Your task to perform on an android device: set the stopwatch Image 0: 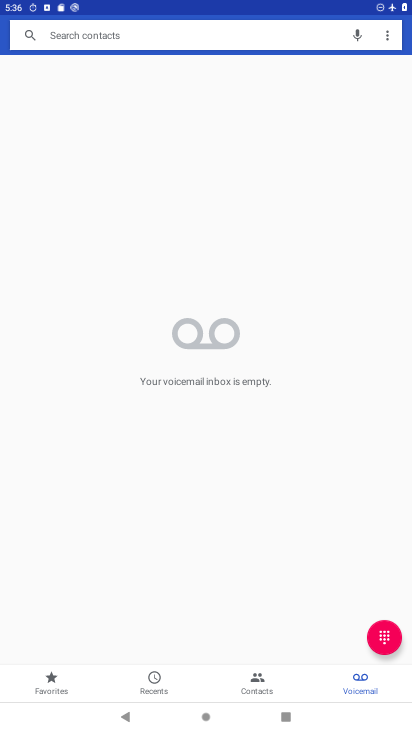
Step 0: press home button
Your task to perform on an android device: set the stopwatch Image 1: 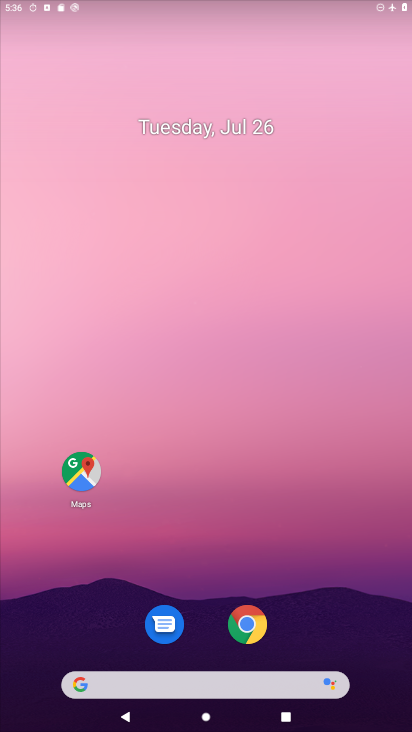
Step 1: drag from (194, 671) to (278, 50)
Your task to perform on an android device: set the stopwatch Image 2: 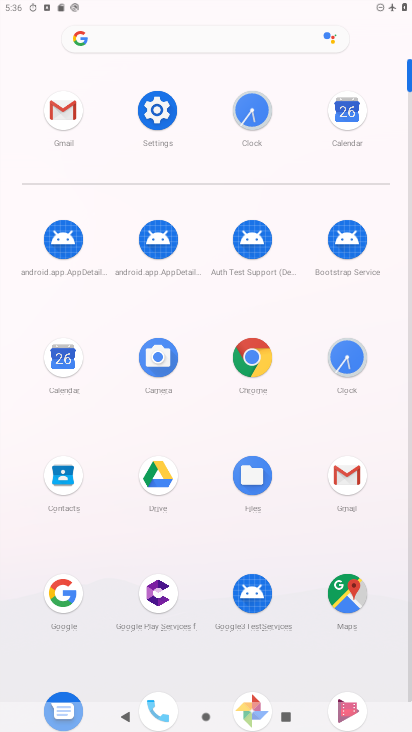
Step 2: click (340, 349)
Your task to perform on an android device: set the stopwatch Image 3: 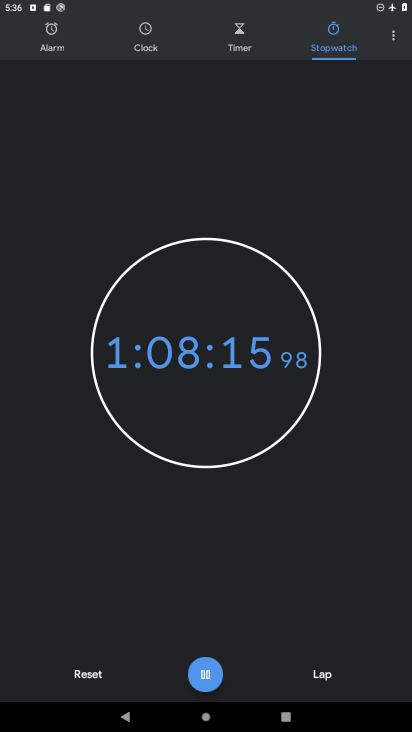
Step 3: task complete